Your task to perform on an android device: Open location settings Image 0: 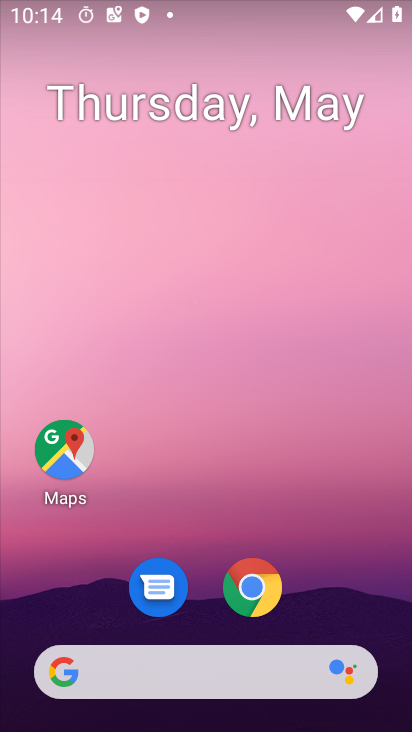
Step 0: drag from (362, 617) to (326, 40)
Your task to perform on an android device: Open location settings Image 1: 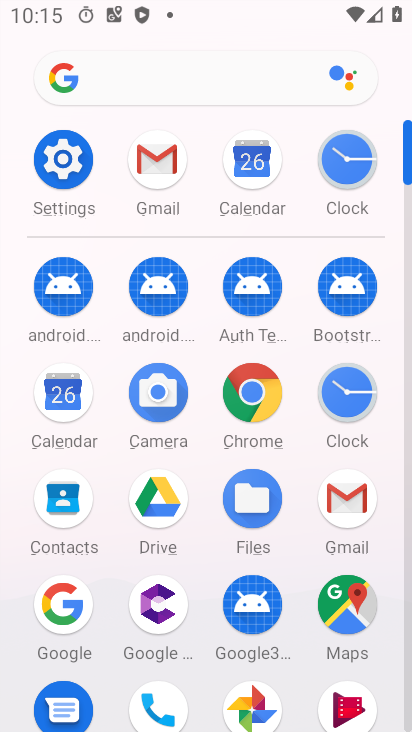
Step 1: click (62, 164)
Your task to perform on an android device: Open location settings Image 2: 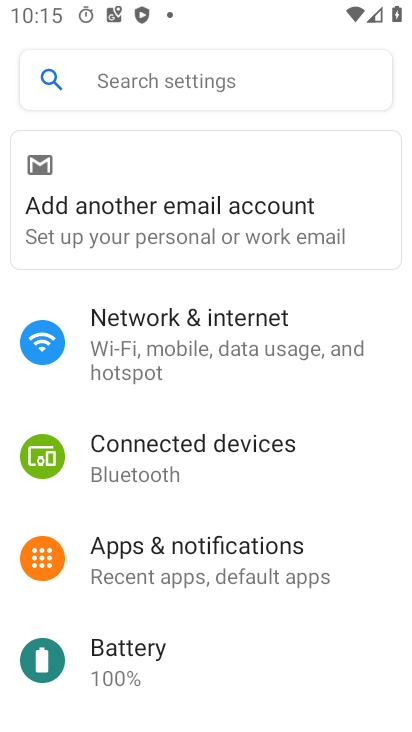
Step 2: drag from (369, 586) to (336, 148)
Your task to perform on an android device: Open location settings Image 3: 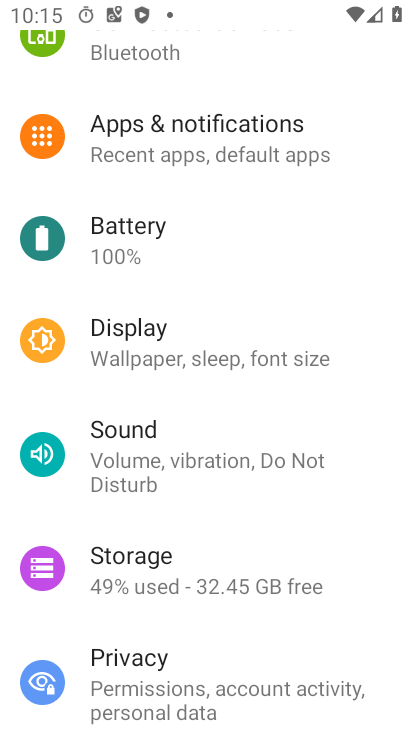
Step 3: drag from (379, 543) to (361, 200)
Your task to perform on an android device: Open location settings Image 4: 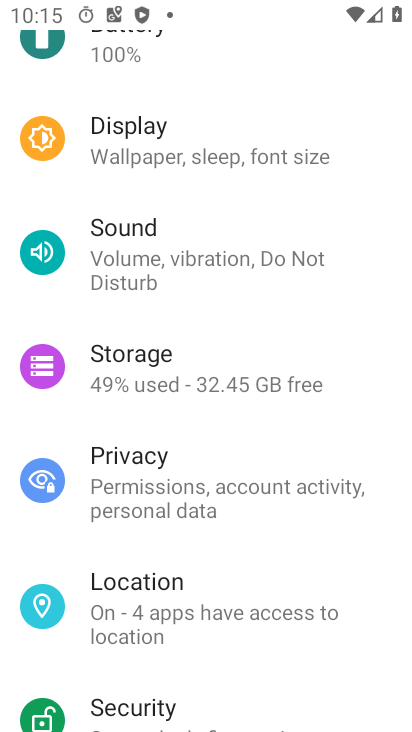
Step 4: click (150, 602)
Your task to perform on an android device: Open location settings Image 5: 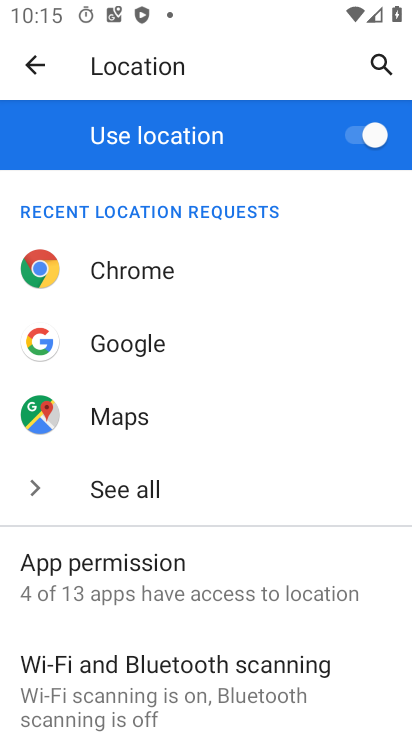
Step 5: task complete